Your task to perform on an android device: Go to network settings Image 0: 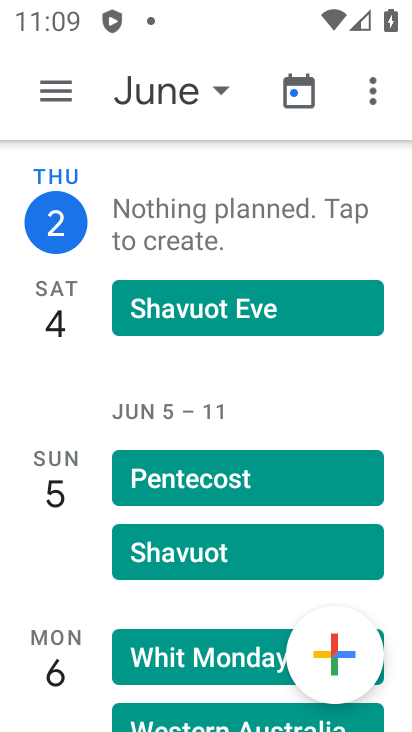
Step 0: press home button
Your task to perform on an android device: Go to network settings Image 1: 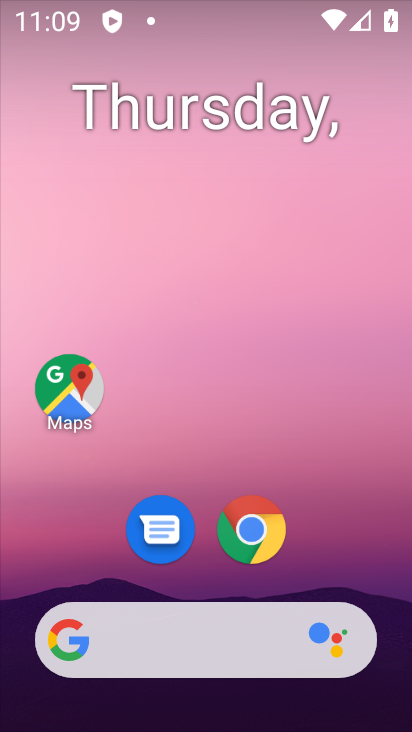
Step 1: drag from (236, 587) to (224, 187)
Your task to perform on an android device: Go to network settings Image 2: 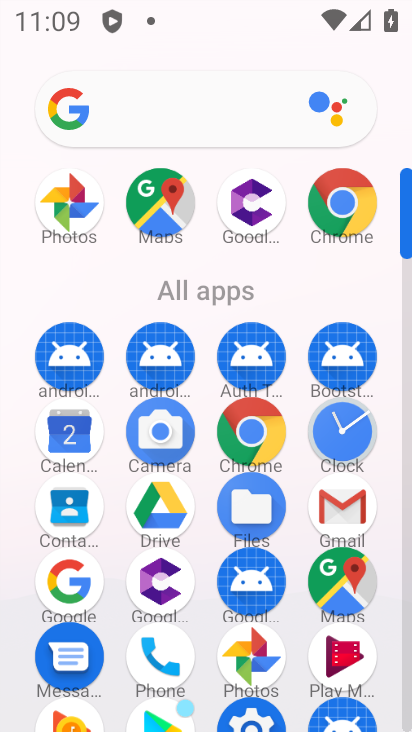
Step 2: click (248, 719)
Your task to perform on an android device: Go to network settings Image 3: 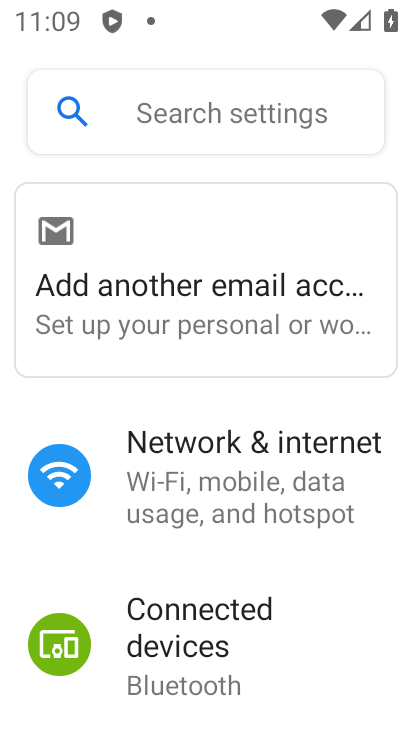
Step 3: click (251, 474)
Your task to perform on an android device: Go to network settings Image 4: 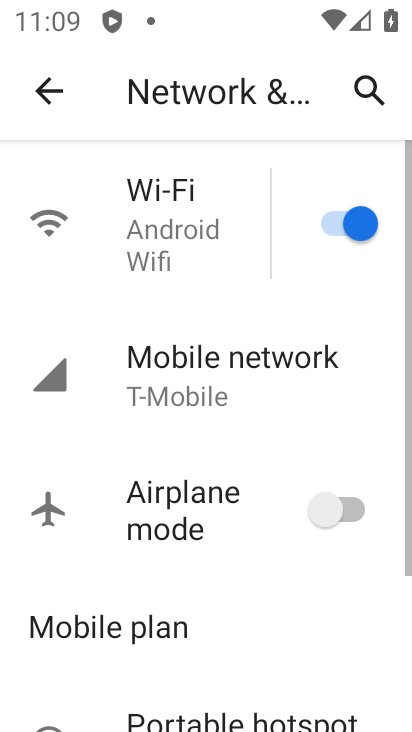
Step 4: click (196, 376)
Your task to perform on an android device: Go to network settings Image 5: 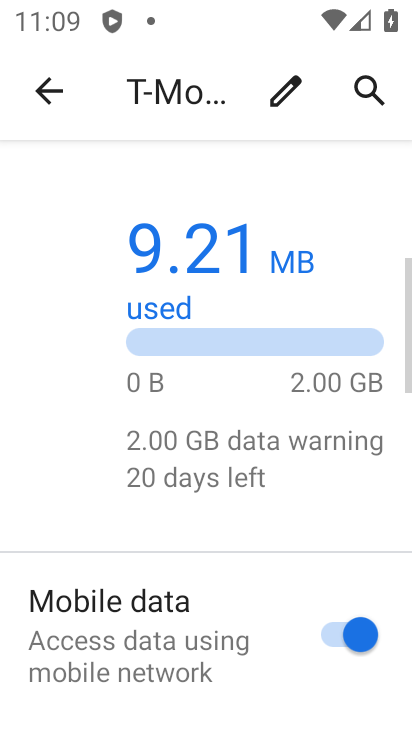
Step 5: task complete